Your task to perform on an android device: Search for "asus zenbook" on newegg, select the first entry, and add it to the cart. Image 0: 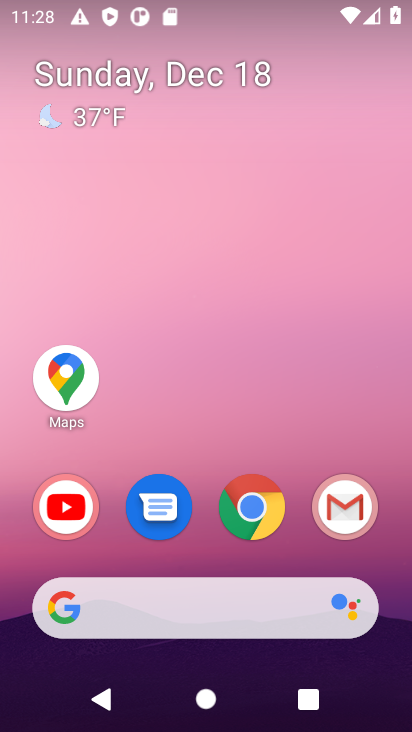
Step 0: click (255, 513)
Your task to perform on an android device: Search for "asus zenbook" on newegg, select the first entry, and add it to the cart. Image 1: 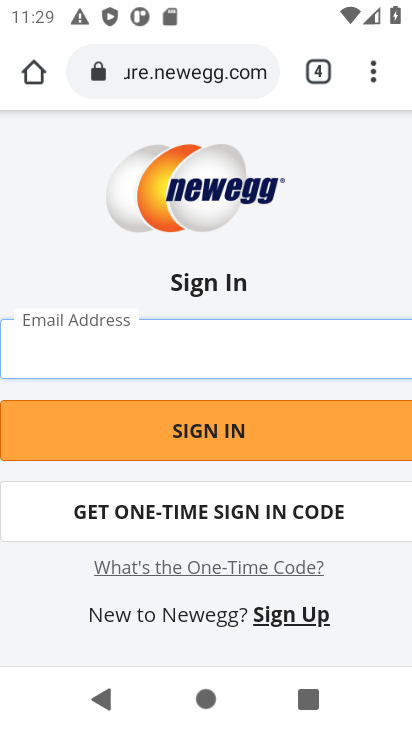
Step 1: press back button
Your task to perform on an android device: Search for "asus zenbook" on newegg, select the first entry, and add it to the cart. Image 2: 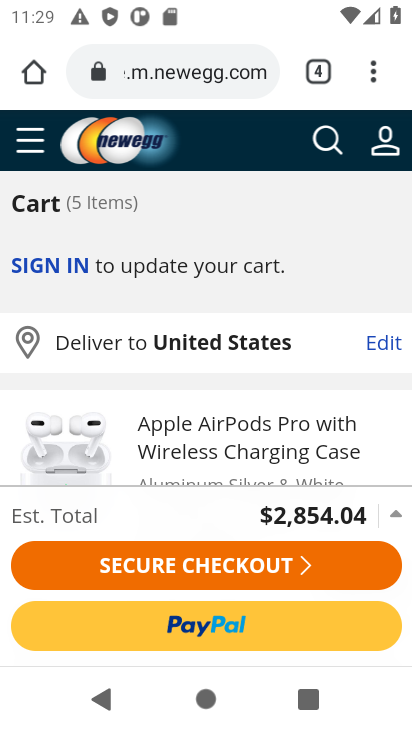
Step 2: drag from (119, 329) to (154, 494)
Your task to perform on an android device: Search for "asus zenbook" on newegg, select the first entry, and add it to the cart. Image 3: 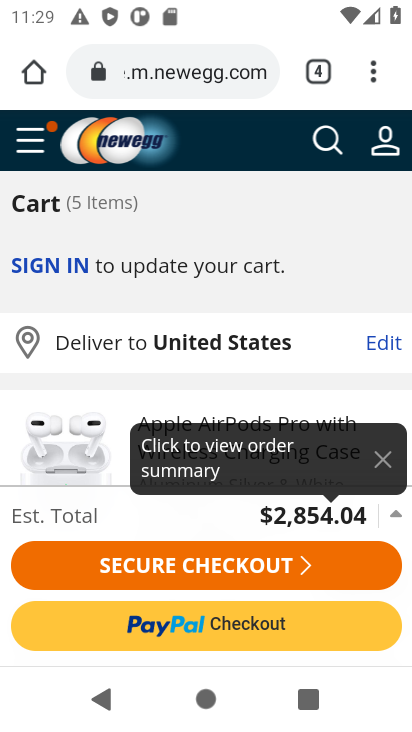
Step 3: click (340, 144)
Your task to perform on an android device: Search for "asus zenbook" on newegg, select the first entry, and add it to the cart. Image 4: 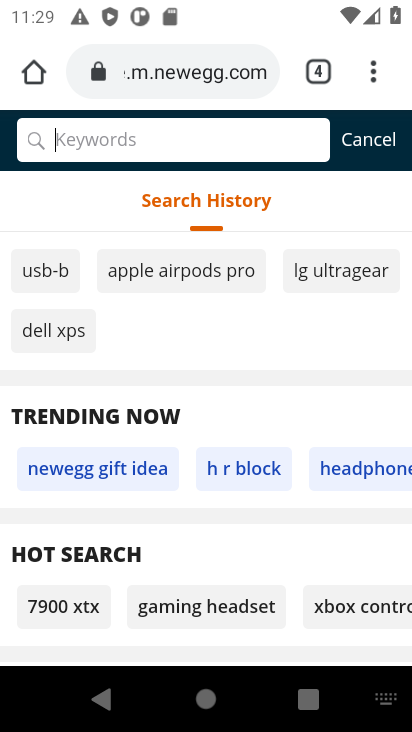
Step 4: type "asus zenbook"
Your task to perform on an android device: Search for "asus zenbook" on newegg, select the first entry, and add it to the cart. Image 5: 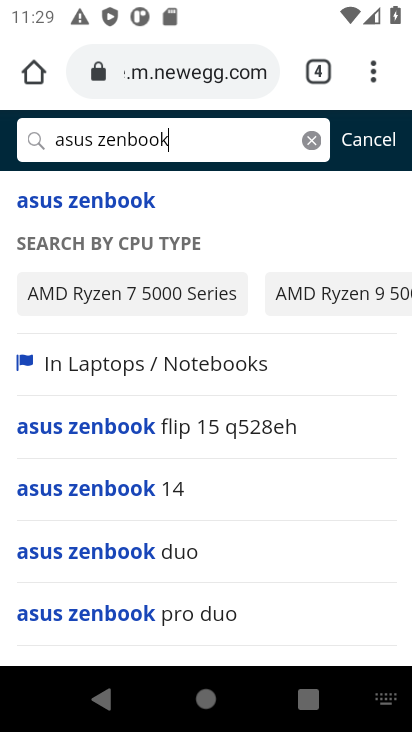
Step 5: click (68, 208)
Your task to perform on an android device: Search for "asus zenbook" on newegg, select the first entry, and add it to the cart. Image 6: 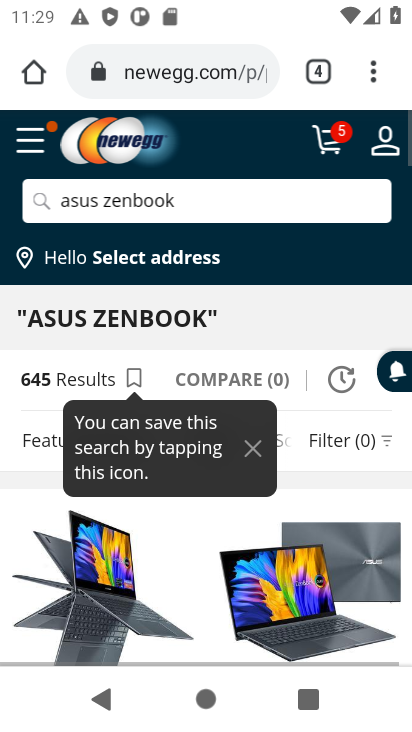
Step 6: drag from (133, 525) to (167, 132)
Your task to perform on an android device: Search for "asus zenbook" on newegg, select the first entry, and add it to the cart. Image 7: 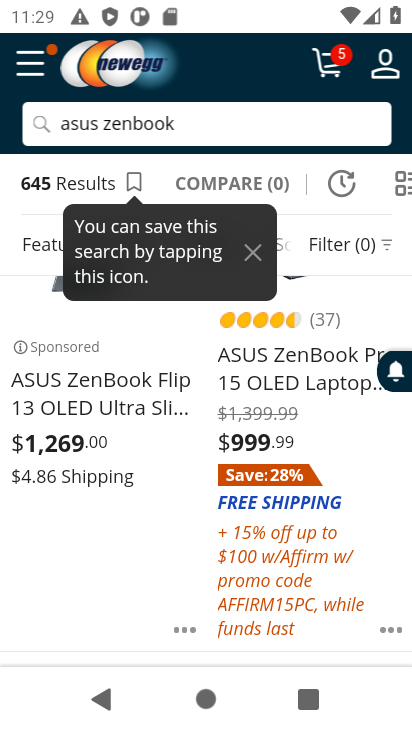
Step 7: click (54, 387)
Your task to perform on an android device: Search for "asus zenbook" on newegg, select the first entry, and add it to the cart. Image 8: 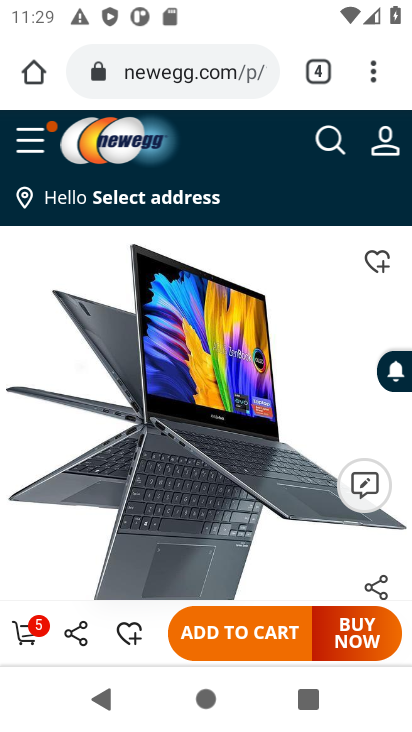
Step 8: click (239, 628)
Your task to perform on an android device: Search for "asus zenbook" on newegg, select the first entry, and add it to the cart. Image 9: 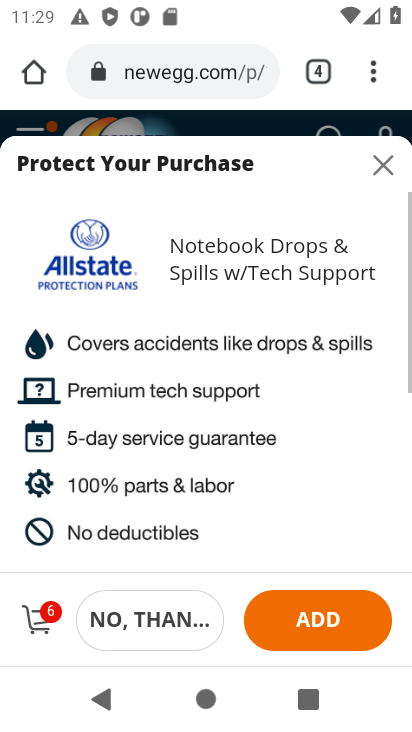
Step 9: task complete